Your task to perform on an android device: manage bookmarks in the chrome app Image 0: 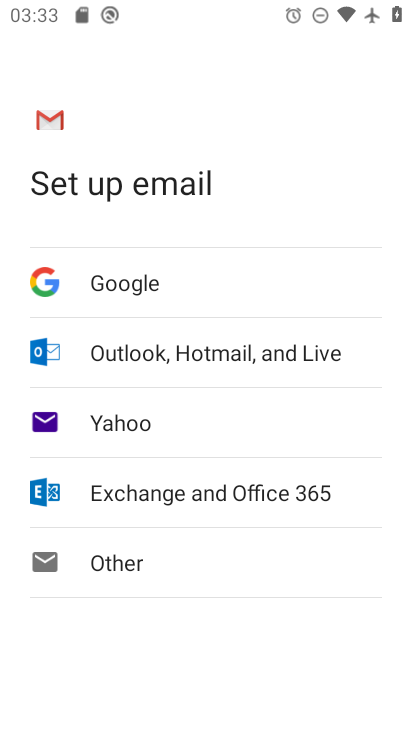
Step 0: press home button
Your task to perform on an android device: manage bookmarks in the chrome app Image 1: 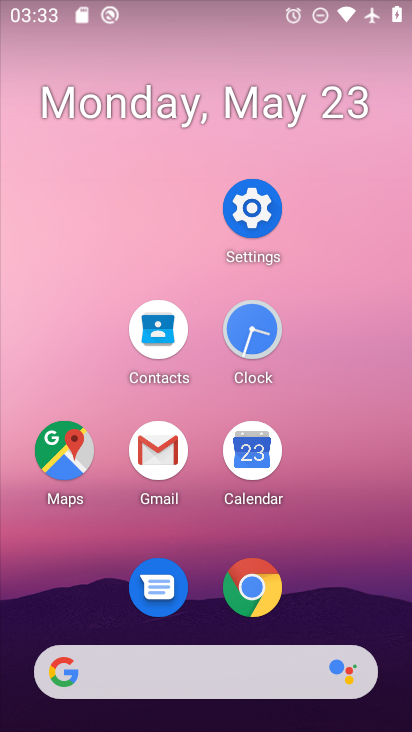
Step 1: click (257, 602)
Your task to perform on an android device: manage bookmarks in the chrome app Image 2: 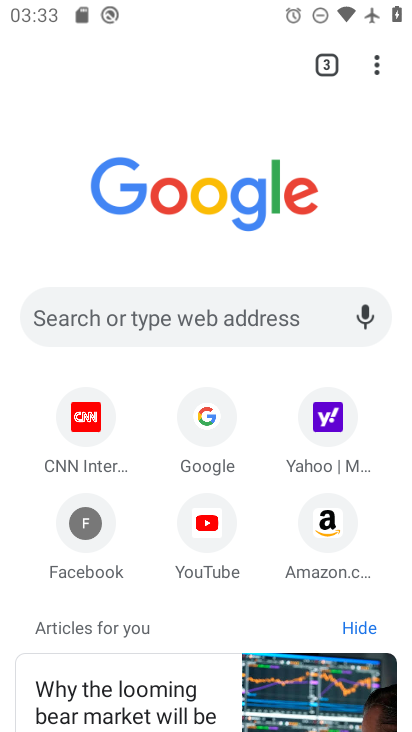
Step 2: click (384, 70)
Your task to perform on an android device: manage bookmarks in the chrome app Image 3: 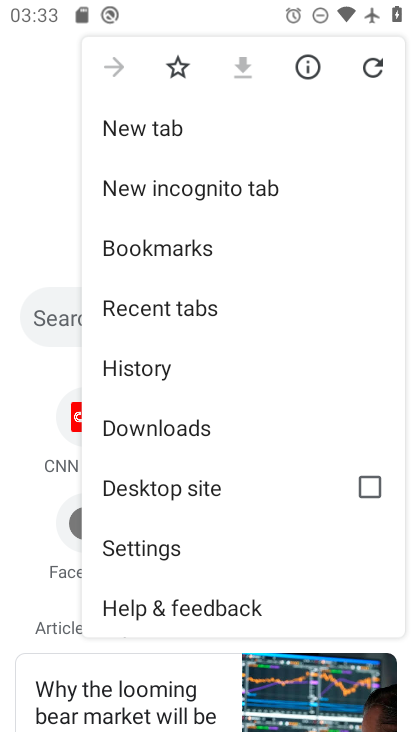
Step 3: click (213, 243)
Your task to perform on an android device: manage bookmarks in the chrome app Image 4: 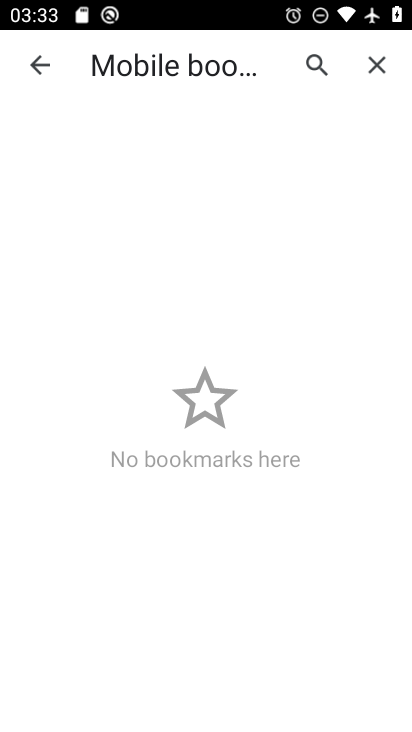
Step 4: task complete